Your task to perform on an android device: change the clock display to analog Image 0: 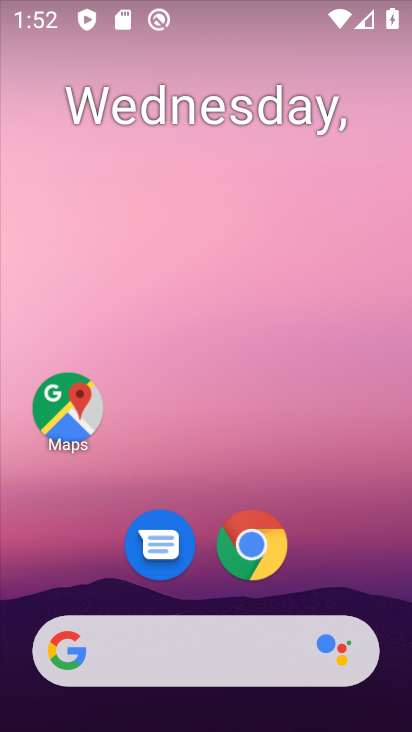
Step 0: drag from (308, 362) to (272, 11)
Your task to perform on an android device: change the clock display to analog Image 1: 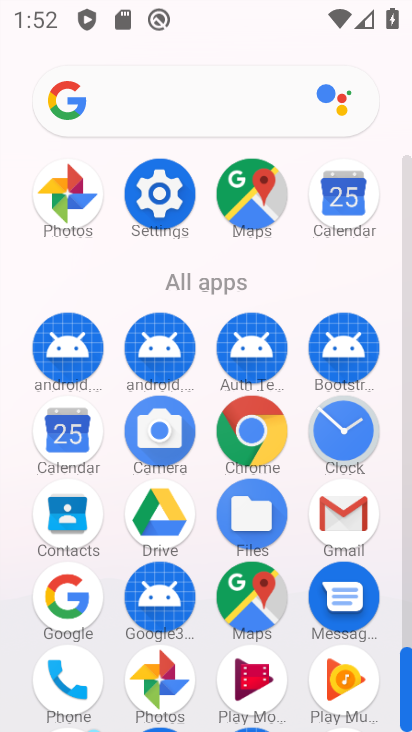
Step 1: click (342, 424)
Your task to perform on an android device: change the clock display to analog Image 2: 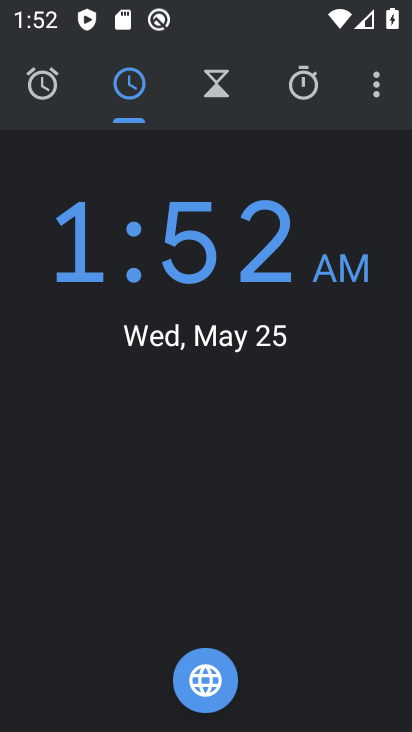
Step 2: click (384, 90)
Your task to perform on an android device: change the clock display to analog Image 3: 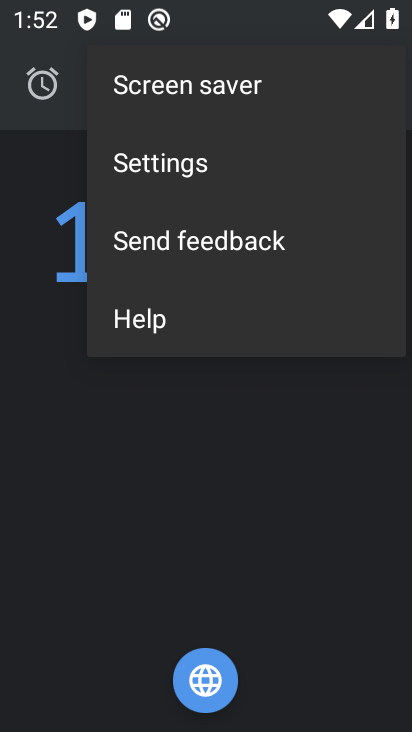
Step 3: click (202, 172)
Your task to perform on an android device: change the clock display to analog Image 4: 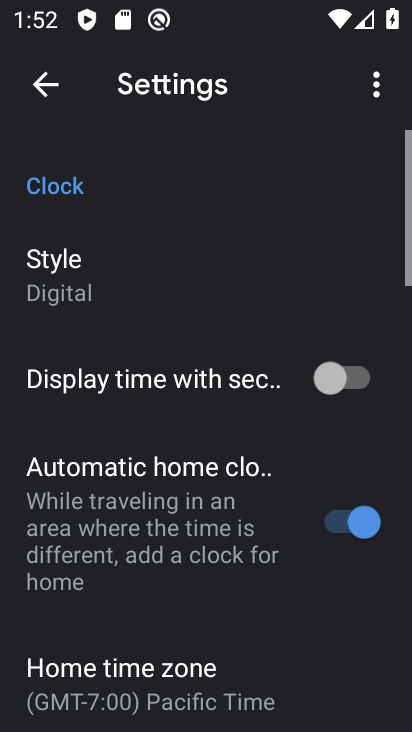
Step 4: click (143, 273)
Your task to perform on an android device: change the clock display to analog Image 5: 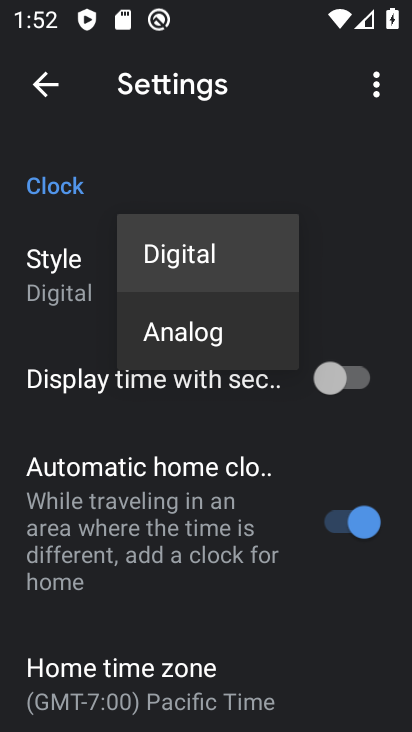
Step 5: click (224, 313)
Your task to perform on an android device: change the clock display to analog Image 6: 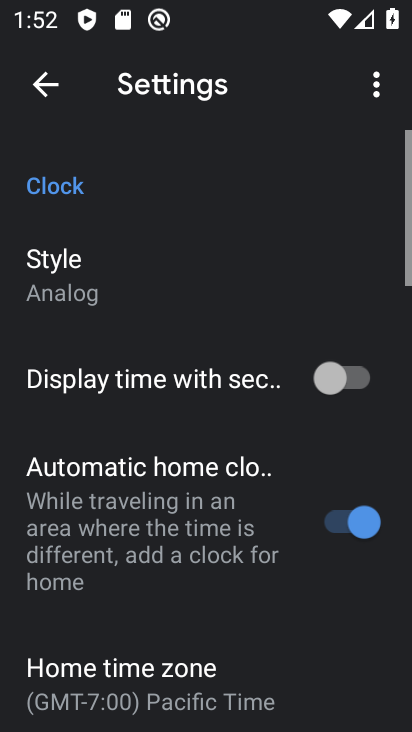
Step 6: task complete